Your task to perform on an android device: clear all cookies in the chrome app Image 0: 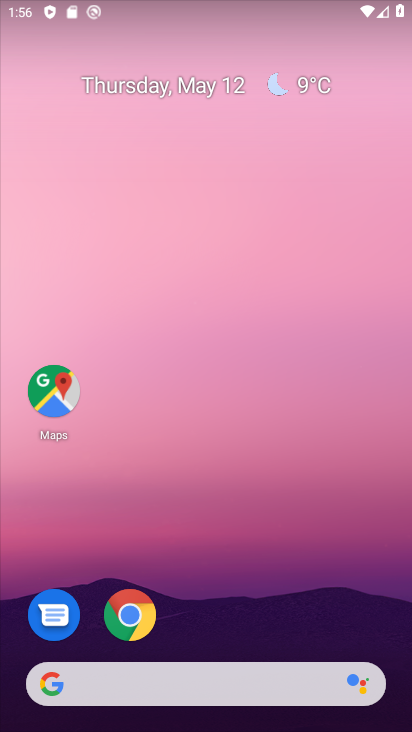
Step 0: click (140, 612)
Your task to perform on an android device: clear all cookies in the chrome app Image 1: 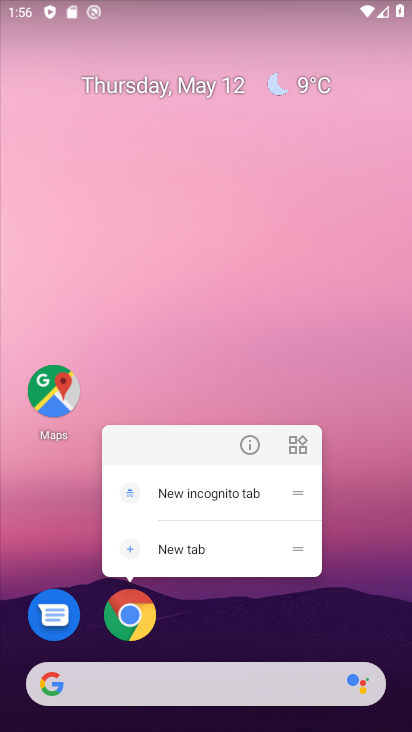
Step 1: click (144, 631)
Your task to perform on an android device: clear all cookies in the chrome app Image 2: 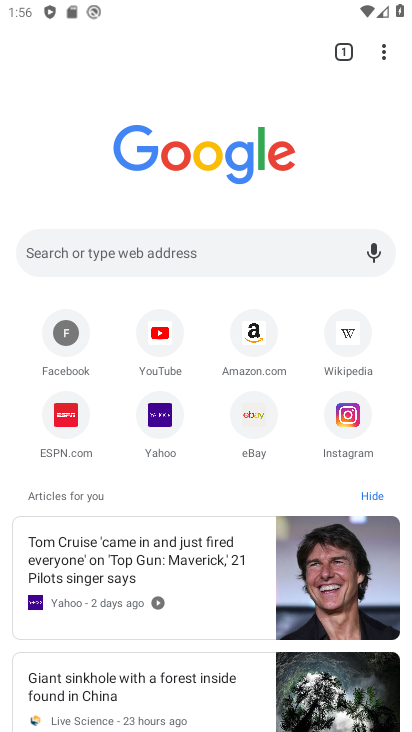
Step 2: task complete